Your task to perform on an android device: When is my next meeting? Image 0: 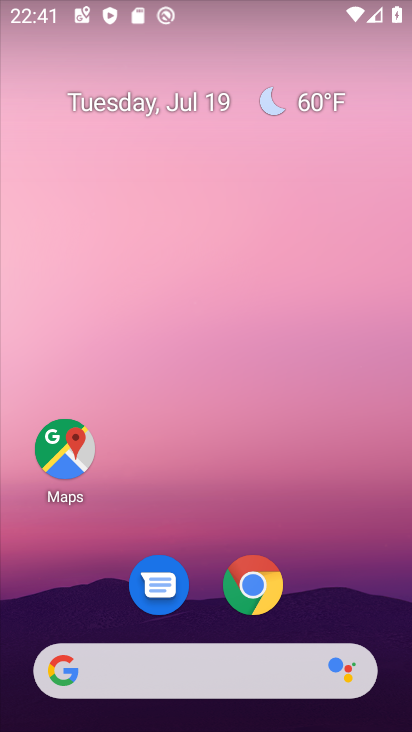
Step 0: drag from (337, 594) to (317, 56)
Your task to perform on an android device: When is my next meeting? Image 1: 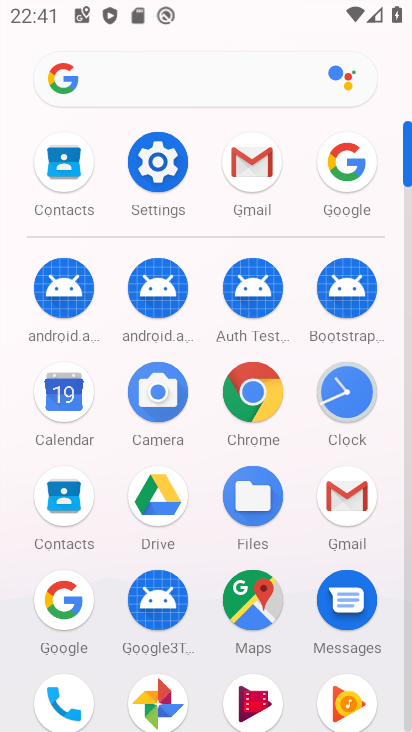
Step 1: click (69, 386)
Your task to perform on an android device: When is my next meeting? Image 2: 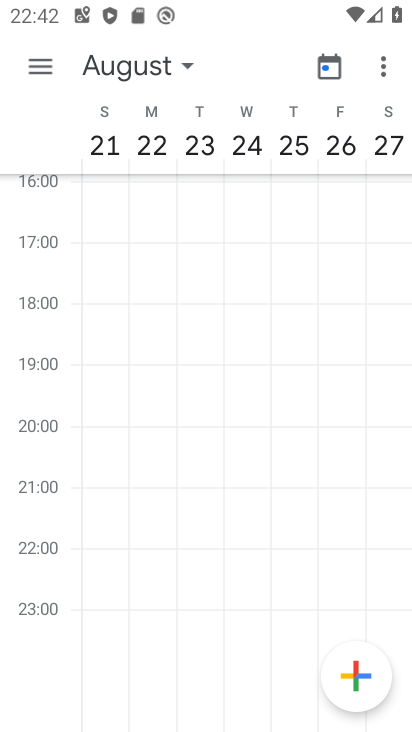
Step 2: drag from (103, 261) to (409, 252)
Your task to perform on an android device: When is my next meeting? Image 3: 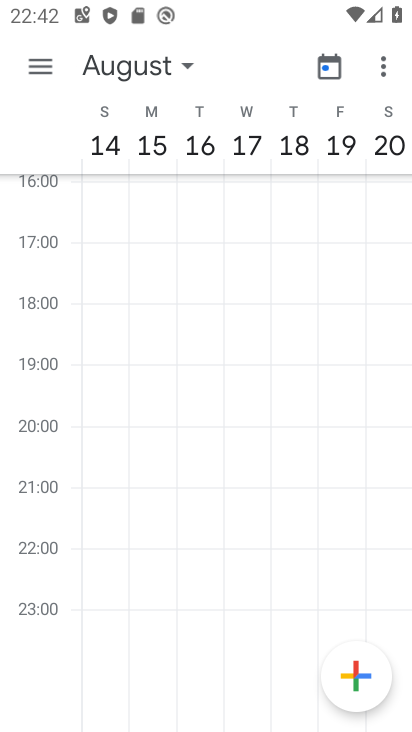
Step 3: drag from (101, 259) to (409, 270)
Your task to perform on an android device: When is my next meeting? Image 4: 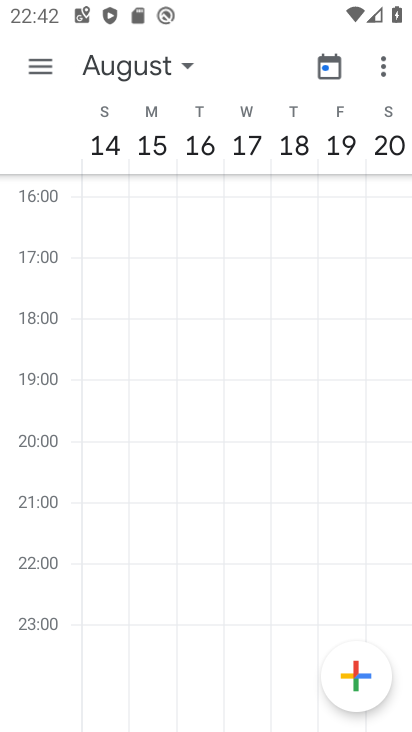
Step 4: drag from (96, 208) to (395, 247)
Your task to perform on an android device: When is my next meeting? Image 5: 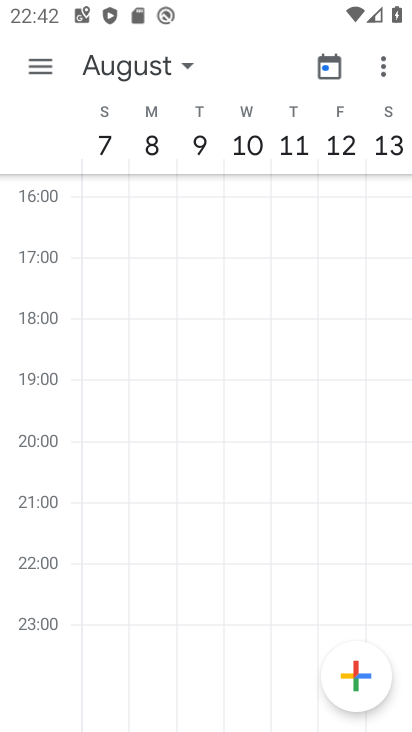
Step 5: drag from (99, 217) to (412, 209)
Your task to perform on an android device: When is my next meeting? Image 6: 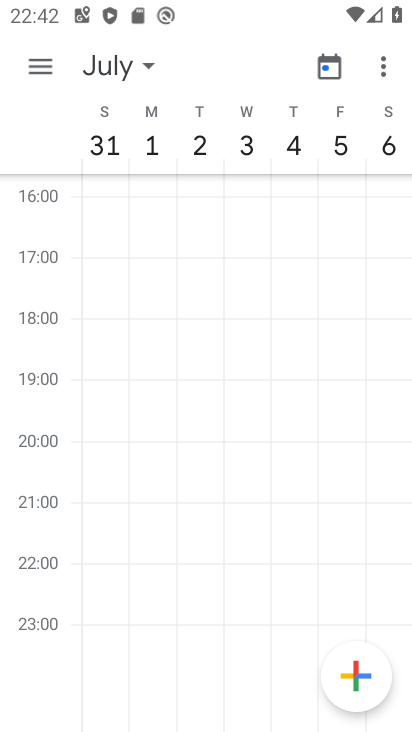
Step 6: drag from (104, 226) to (400, 225)
Your task to perform on an android device: When is my next meeting? Image 7: 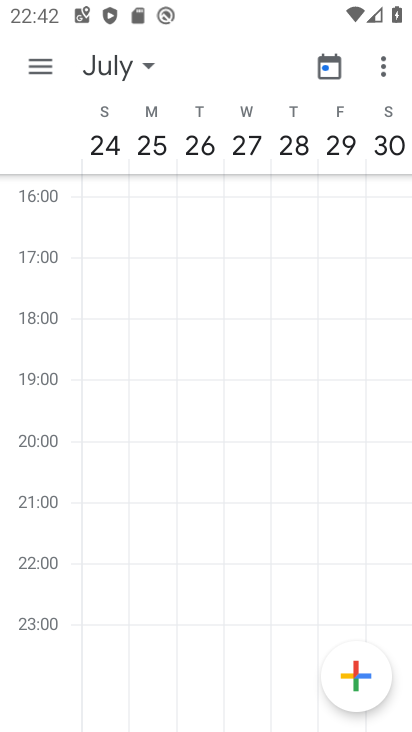
Step 7: drag from (91, 211) to (411, 224)
Your task to perform on an android device: When is my next meeting? Image 8: 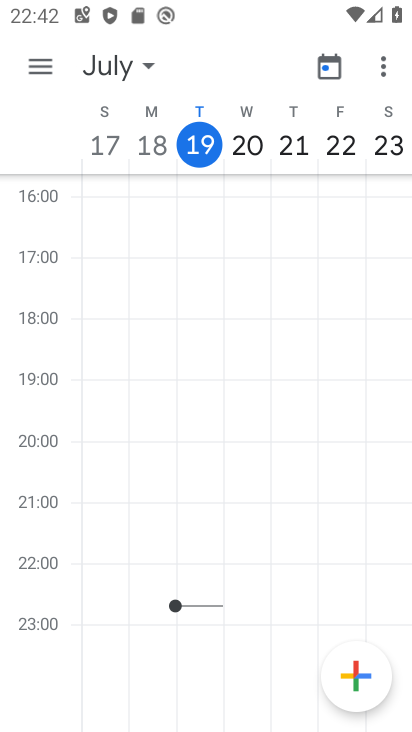
Step 8: click (196, 141)
Your task to perform on an android device: When is my next meeting? Image 9: 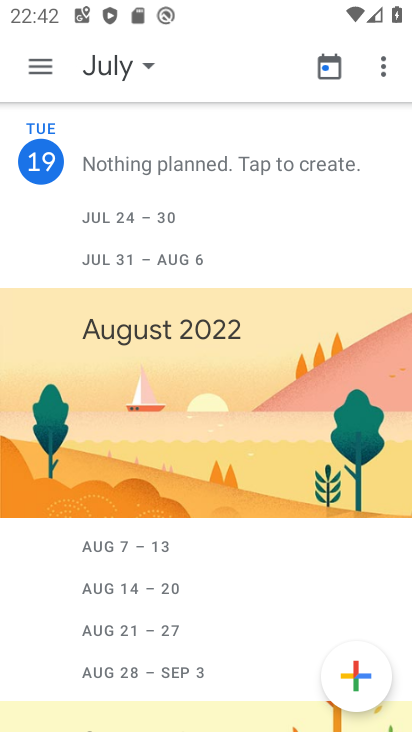
Step 9: task complete